Your task to perform on an android device: open the mobile data screen to see how much data has been used Image 0: 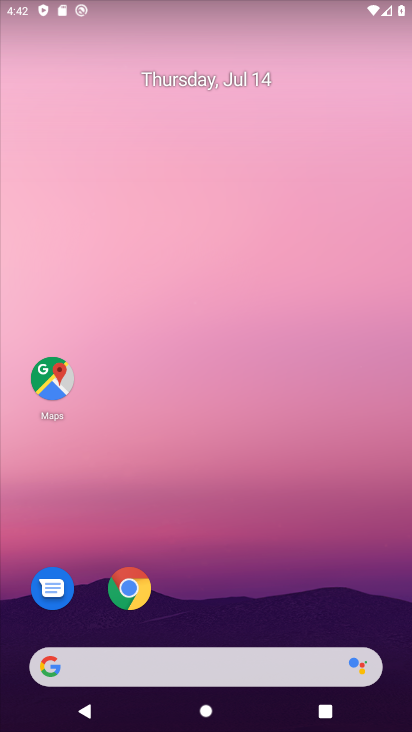
Step 0: drag from (262, 594) to (261, 296)
Your task to perform on an android device: open the mobile data screen to see how much data has been used Image 1: 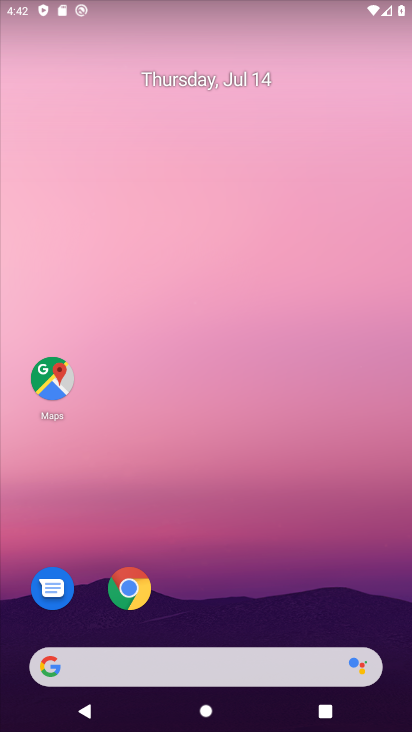
Step 1: drag from (251, 487) to (258, 237)
Your task to perform on an android device: open the mobile data screen to see how much data has been used Image 2: 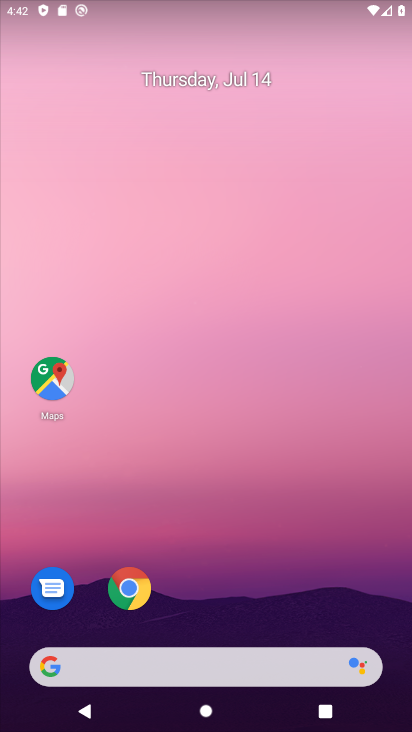
Step 2: drag from (208, 649) to (213, 297)
Your task to perform on an android device: open the mobile data screen to see how much data has been used Image 3: 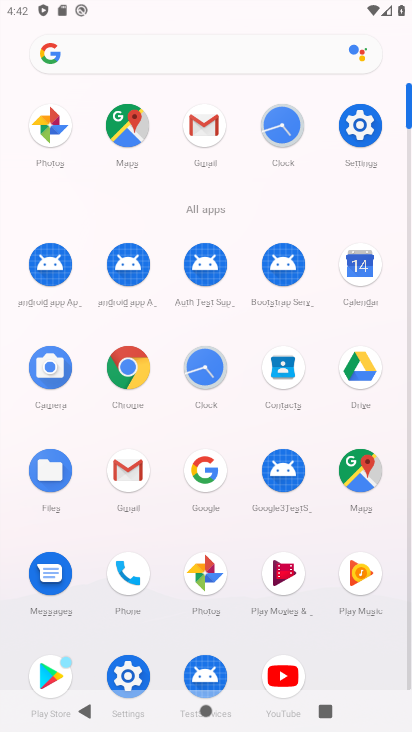
Step 3: click (353, 120)
Your task to perform on an android device: open the mobile data screen to see how much data has been used Image 4: 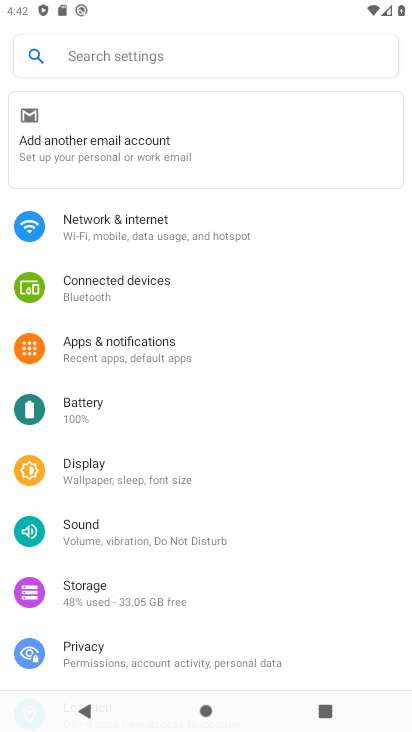
Step 4: click (155, 230)
Your task to perform on an android device: open the mobile data screen to see how much data has been used Image 5: 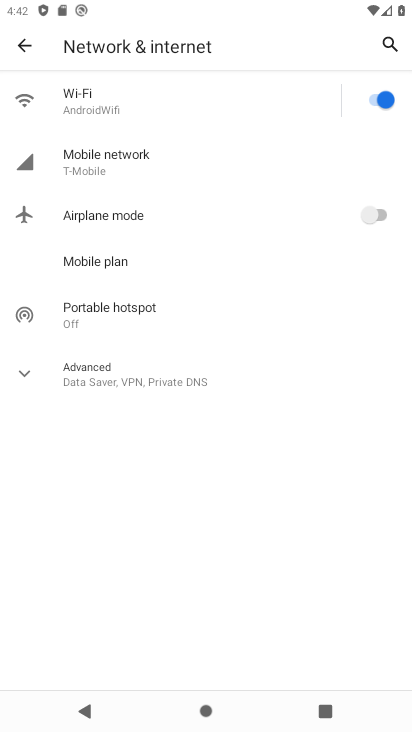
Step 5: click (110, 158)
Your task to perform on an android device: open the mobile data screen to see how much data has been used Image 6: 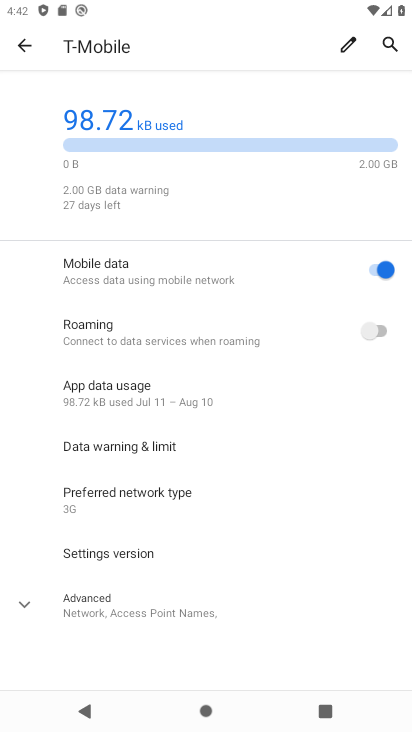
Step 6: task complete